Your task to perform on an android device: manage bookmarks in the chrome app Image 0: 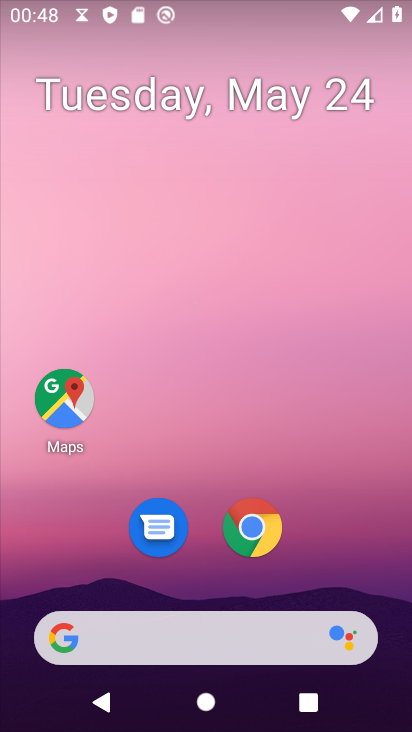
Step 0: drag from (153, 632) to (311, 54)
Your task to perform on an android device: manage bookmarks in the chrome app Image 1: 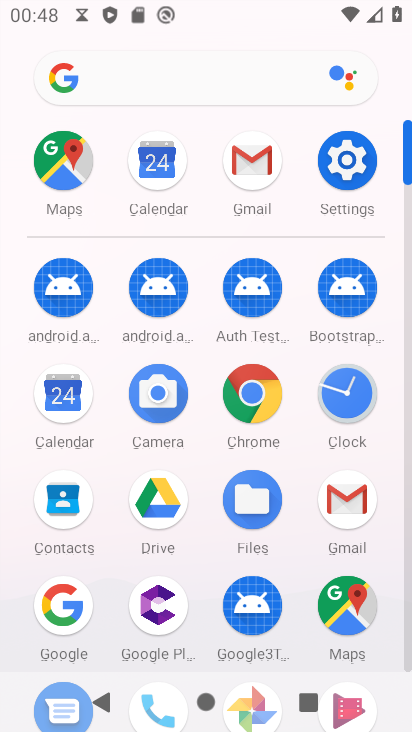
Step 1: click (252, 400)
Your task to perform on an android device: manage bookmarks in the chrome app Image 2: 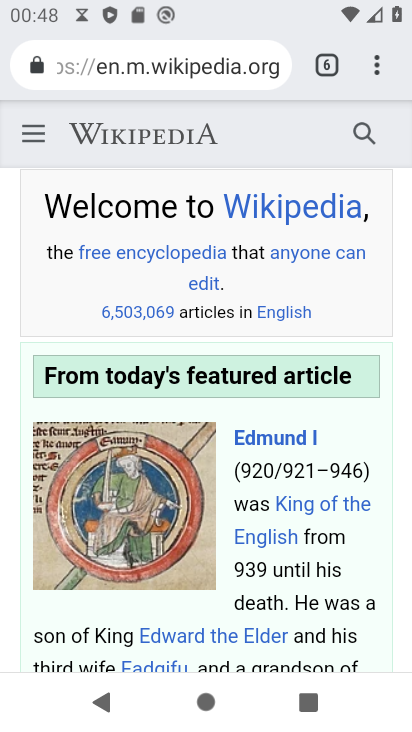
Step 2: task complete